Your task to perform on an android device: change text size in settings app Image 0: 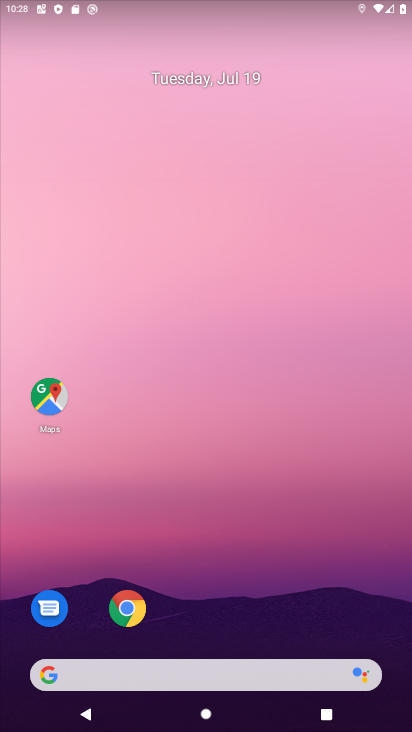
Step 0: drag from (188, 651) to (19, 39)
Your task to perform on an android device: change text size in settings app Image 1: 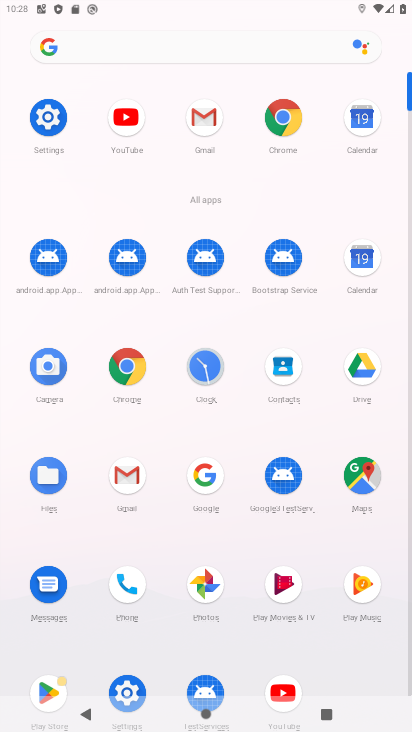
Step 1: click (36, 103)
Your task to perform on an android device: change text size in settings app Image 2: 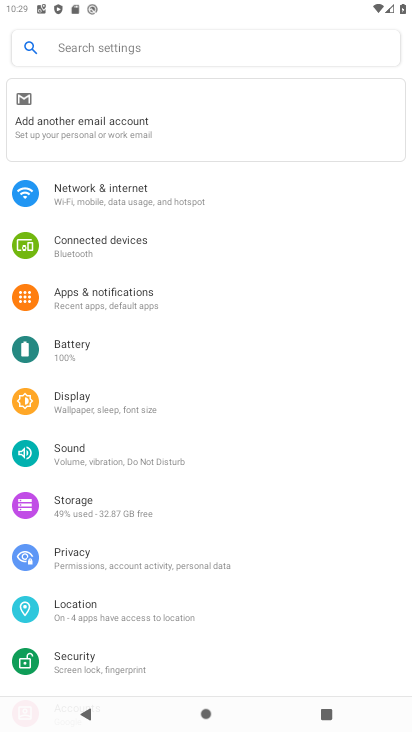
Step 2: click (72, 405)
Your task to perform on an android device: change text size in settings app Image 3: 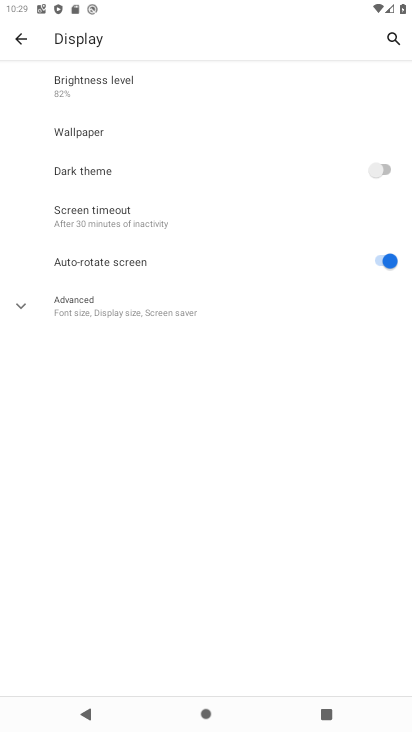
Step 3: click (76, 318)
Your task to perform on an android device: change text size in settings app Image 4: 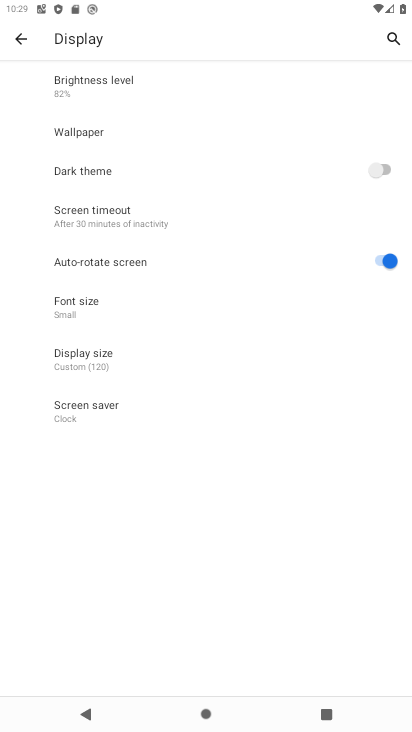
Step 4: click (90, 315)
Your task to perform on an android device: change text size in settings app Image 5: 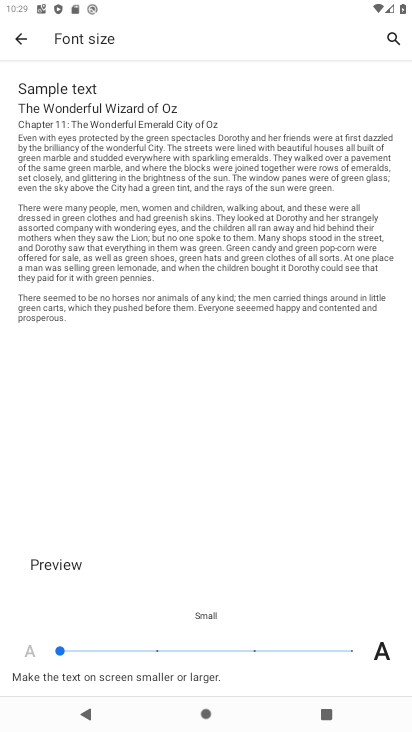
Step 5: click (154, 647)
Your task to perform on an android device: change text size in settings app Image 6: 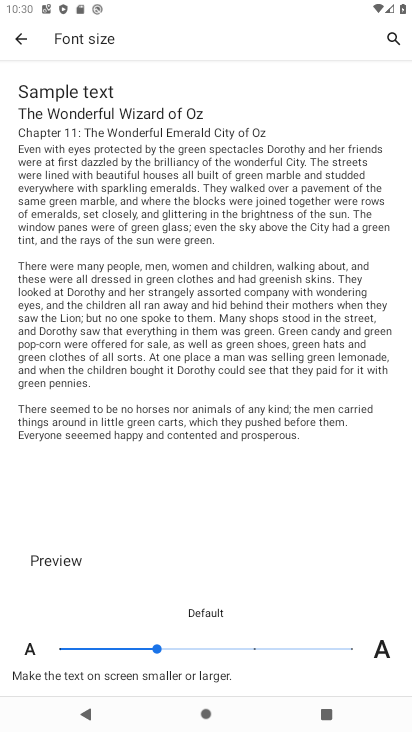
Step 6: task complete